Your task to perform on an android device: remove spam from my inbox in the gmail app Image 0: 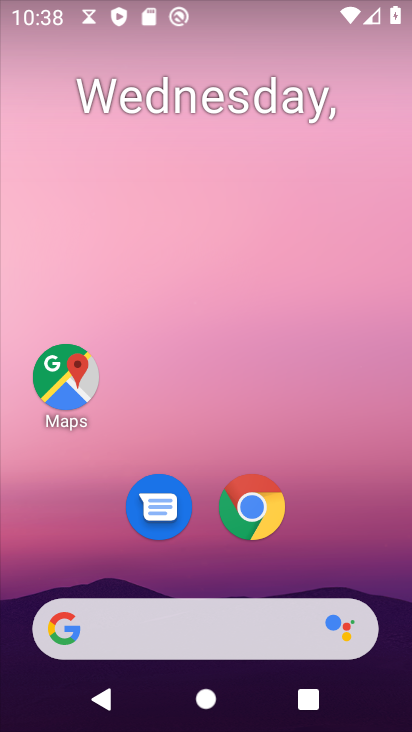
Step 0: drag from (249, 669) to (195, 218)
Your task to perform on an android device: remove spam from my inbox in the gmail app Image 1: 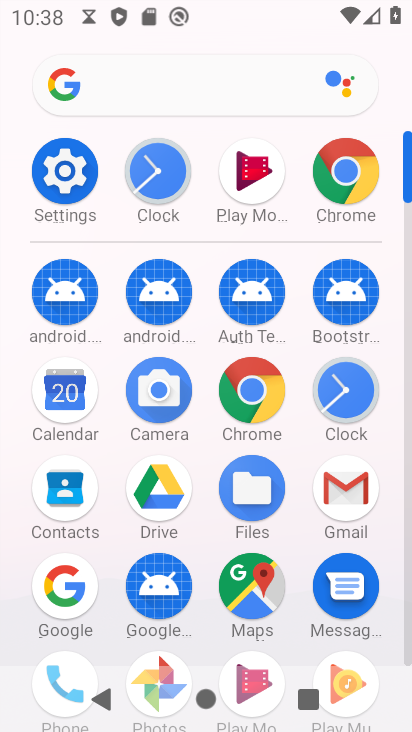
Step 1: click (326, 500)
Your task to perform on an android device: remove spam from my inbox in the gmail app Image 2: 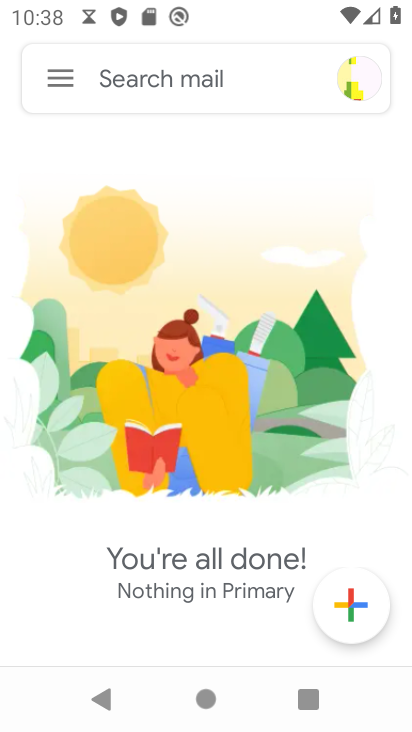
Step 2: click (66, 90)
Your task to perform on an android device: remove spam from my inbox in the gmail app Image 3: 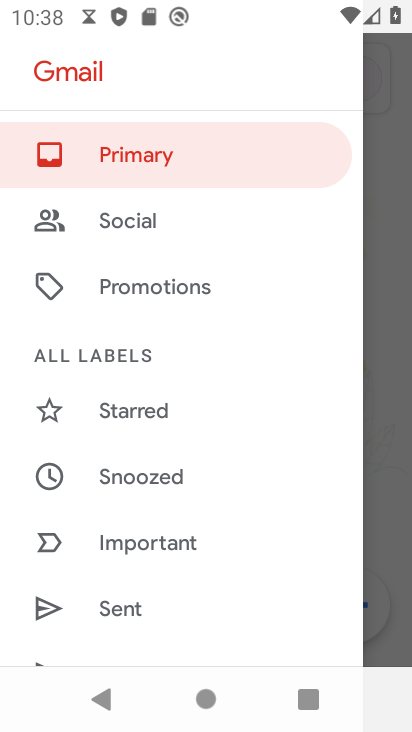
Step 3: drag from (167, 567) to (261, 294)
Your task to perform on an android device: remove spam from my inbox in the gmail app Image 4: 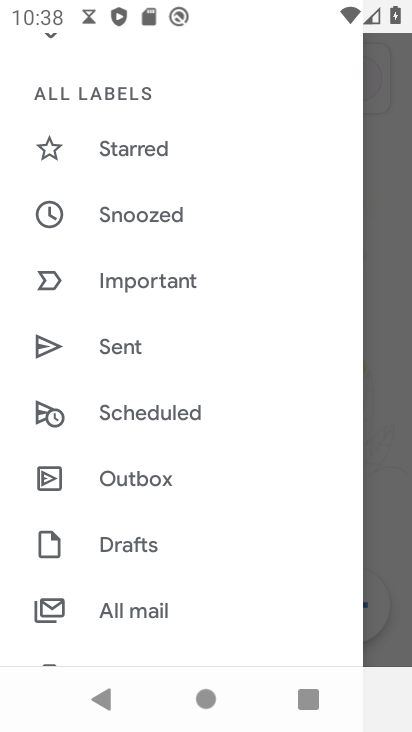
Step 4: drag from (138, 553) to (202, 364)
Your task to perform on an android device: remove spam from my inbox in the gmail app Image 5: 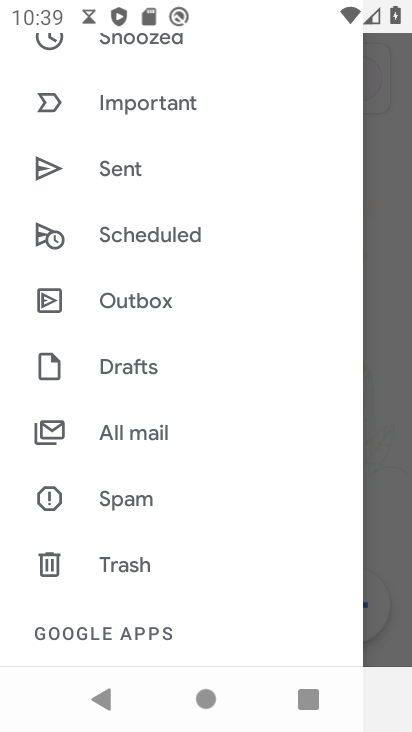
Step 5: click (103, 499)
Your task to perform on an android device: remove spam from my inbox in the gmail app Image 6: 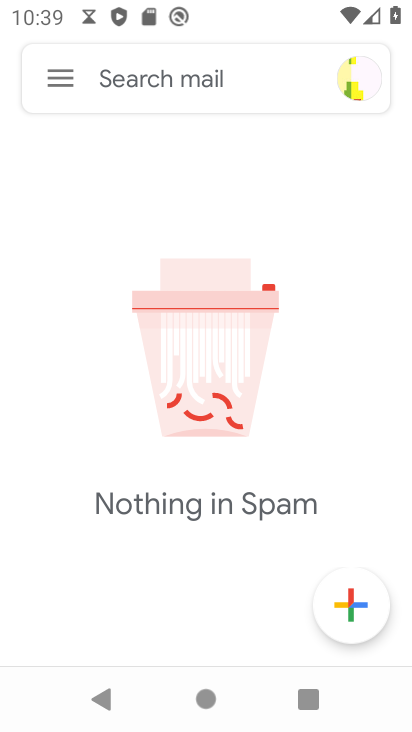
Step 6: click (38, 78)
Your task to perform on an android device: remove spam from my inbox in the gmail app Image 7: 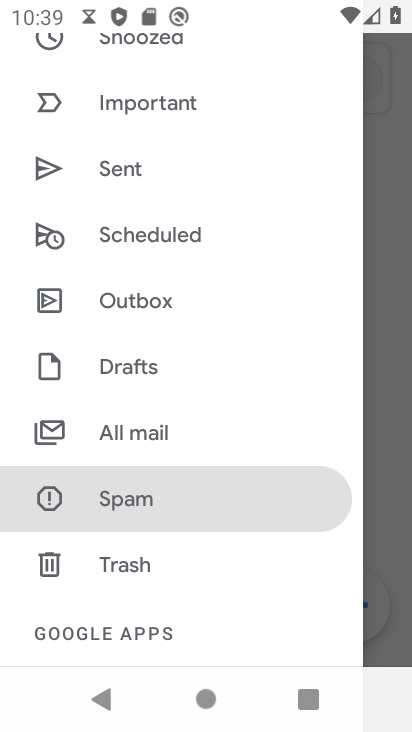
Step 7: click (126, 494)
Your task to perform on an android device: remove spam from my inbox in the gmail app Image 8: 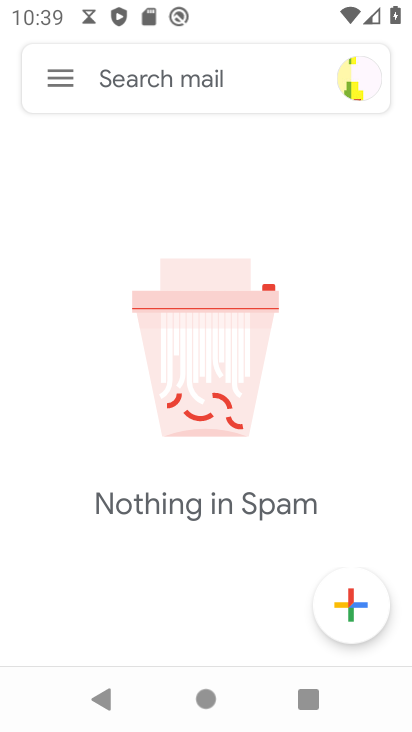
Step 8: task complete